Your task to perform on an android device: What's on my calendar tomorrow? Image 0: 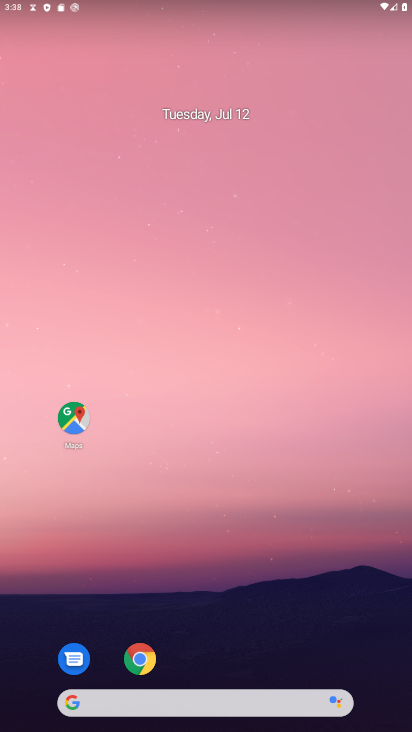
Step 0: press home button
Your task to perform on an android device: What's on my calendar tomorrow? Image 1: 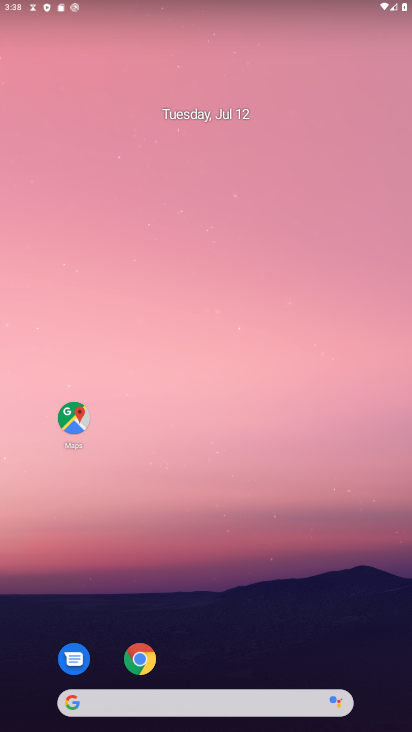
Step 1: drag from (296, 646) to (363, 5)
Your task to perform on an android device: What's on my calendar tomorrow? Image 2: 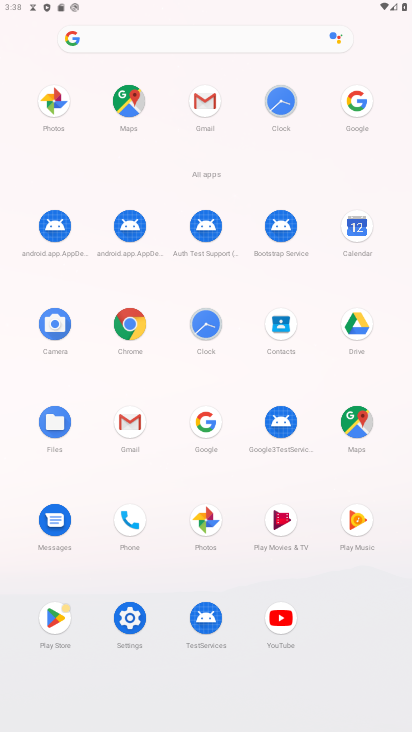
Step 2: click (351, 223)
Your task to perform on an android device: What's on my calendar tomorrow? Image 3: 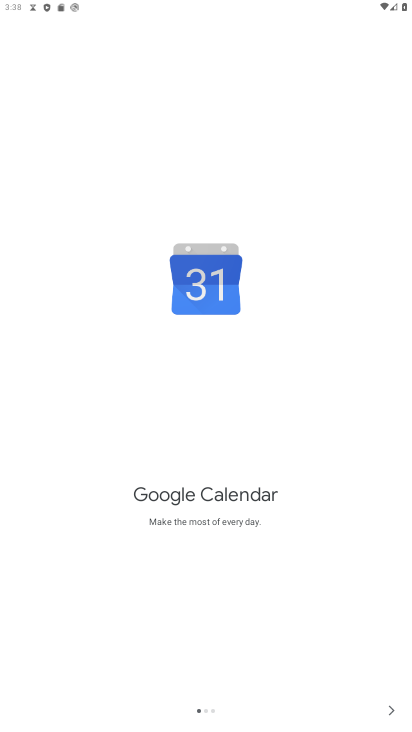
Step 3: click (391, 713)
Your task to perform on an android device: What's on my calendar tomorrow? Image 4: 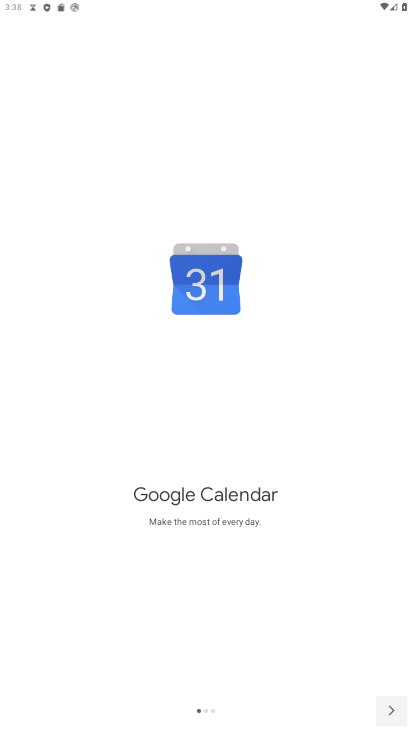
Step 4: click (391, 713)
Your task to perform on an android device: What's on my calendar tomorrow? Image 5: 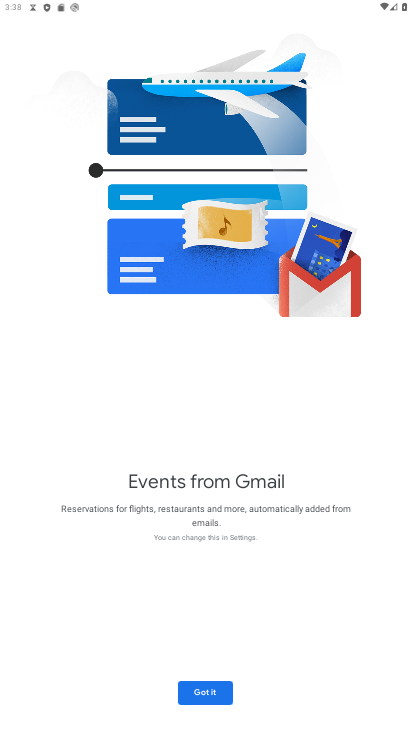
Step 5: click (196, 683)
Your task to perform on an android device: What's on my calendar tomorrow? Image 6: 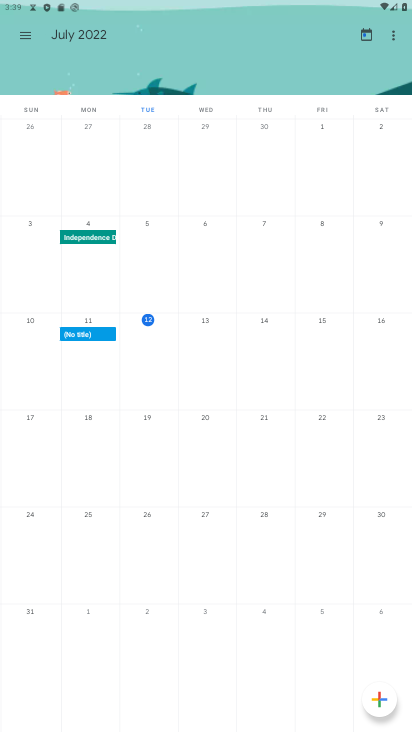
Step 6: task complete